Your task to perform on an android device: Search for Italian restaurants on Maps Image 0: 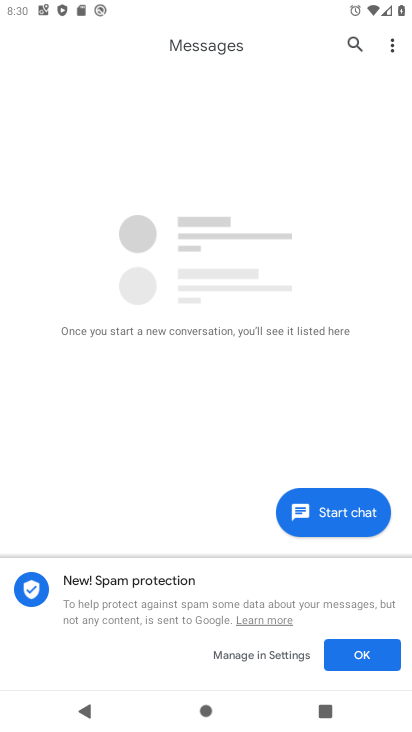
Step 0: press home button
Your task to perform on an android device: Search for Italian restaurants on Maps Image 1: 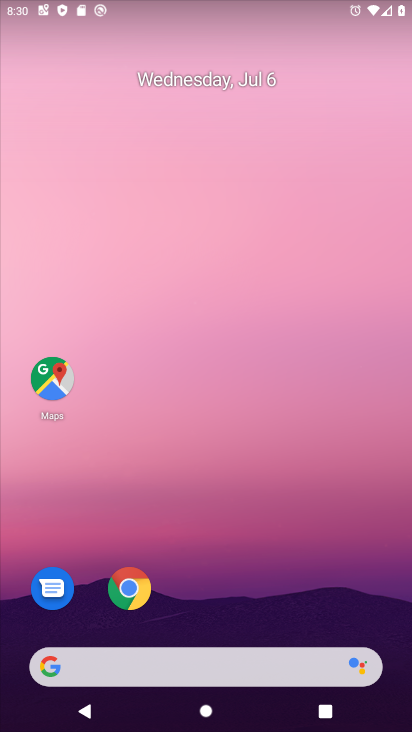
Step 1: drag from (299, 630) to (280, 307)
Your task to perform on an android device: Search for Italian restaurants on Maps Image 2: 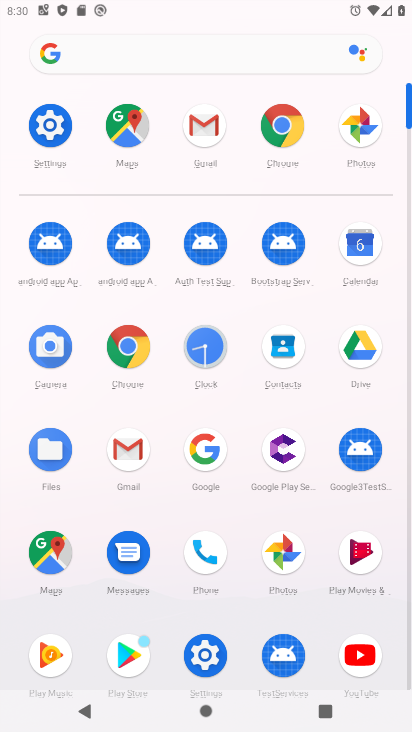
Step 2: click (30, 551)
Your task to perform on an android device: Search for Italian restaurants on Maps Image 3: 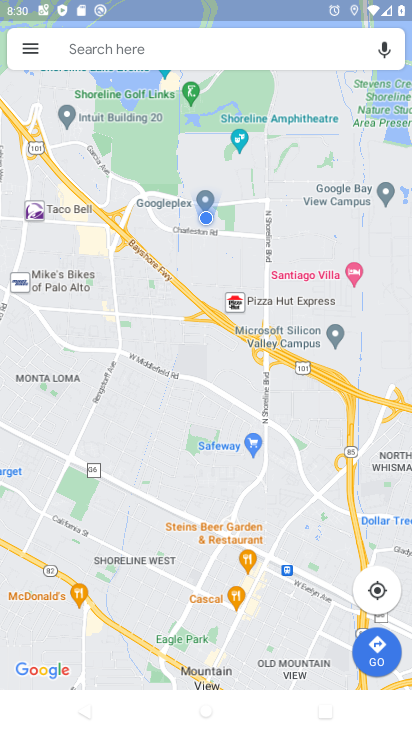
Step 3: click (148, 44)
Your task to perform on an android device: Search for Italian restaurants on Maps Image 4: 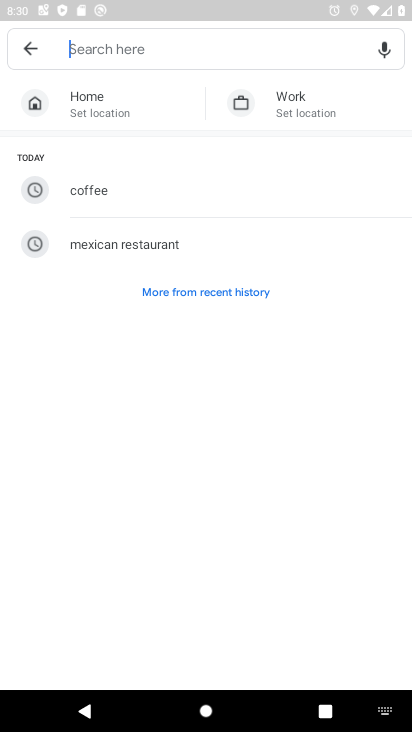
Step 4: type " Italian restaurants  "
Your task to perform on an android device: Search for Italian restaurants on Maps Image 5: 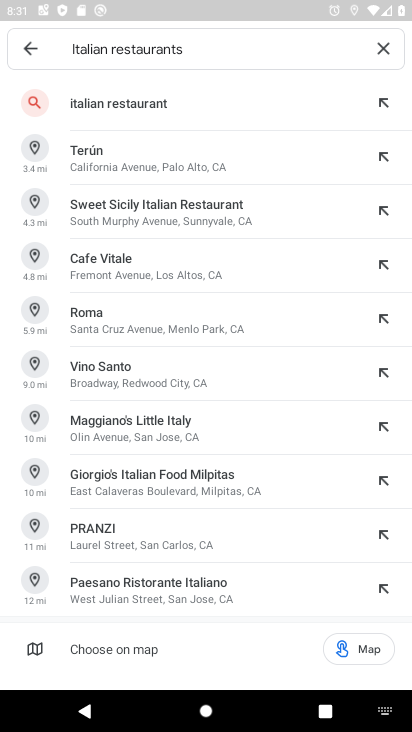
Step 5: click (186, 105)
Your task to perform on an android device: Search for Italian restaurants on Maps Image 6: 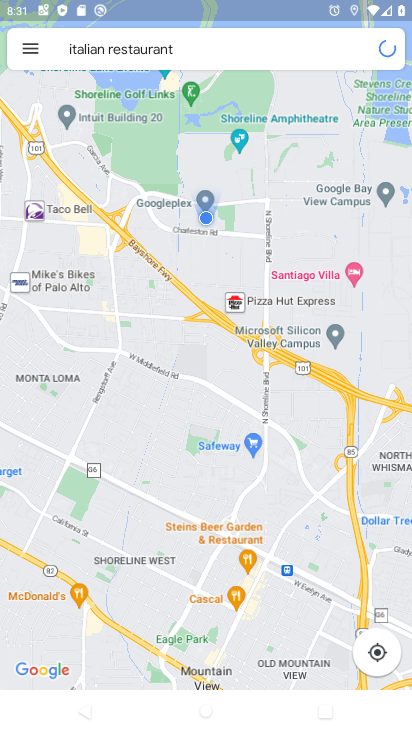
Step 6: task complete